Your task to perform on an android device: refresh tabs in the chrome app Image 0: 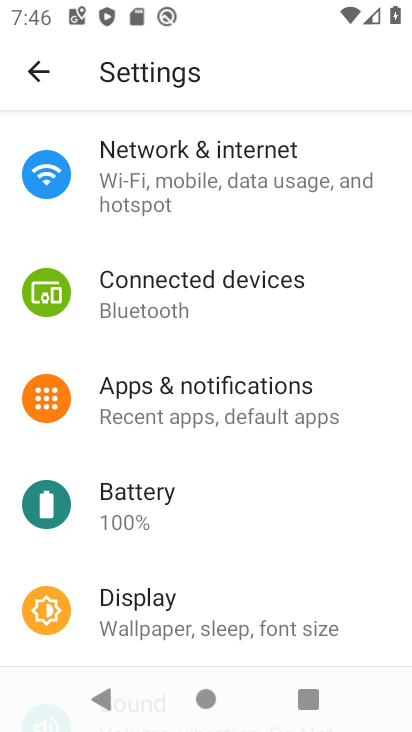
Step 0: press home button
Your task to perform on an android device: refresh tabs in the chrome app Image 1: 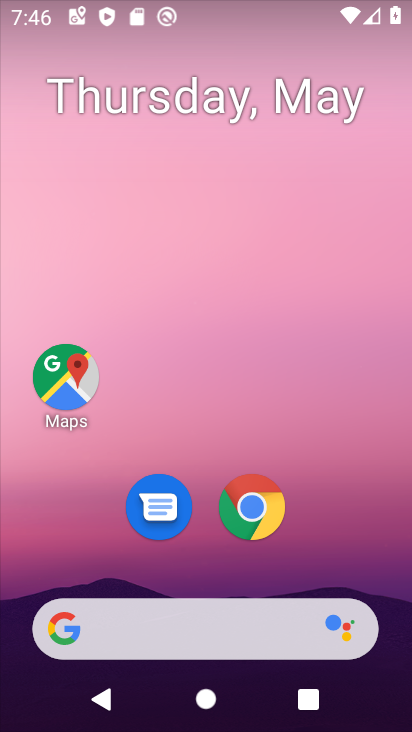
Step 1: drag from (262, 631) to (224, 182)
Your task to perform on an android device: refresh tabs in the chrome app Image 2: 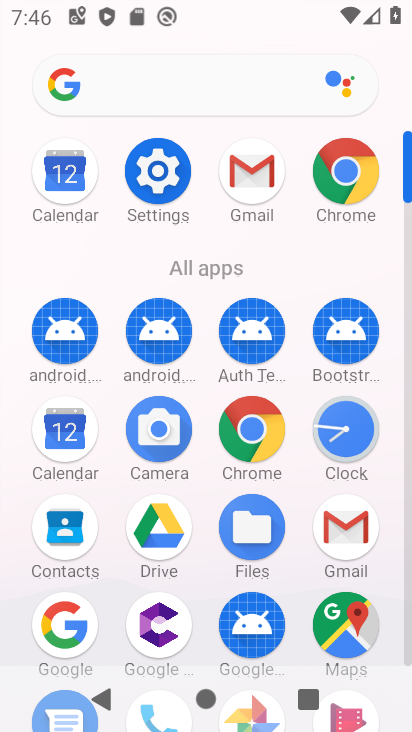
Step 2: click (326, 194)
Your task to perform on an android device: refresh tabs in the chrome app Image 3: 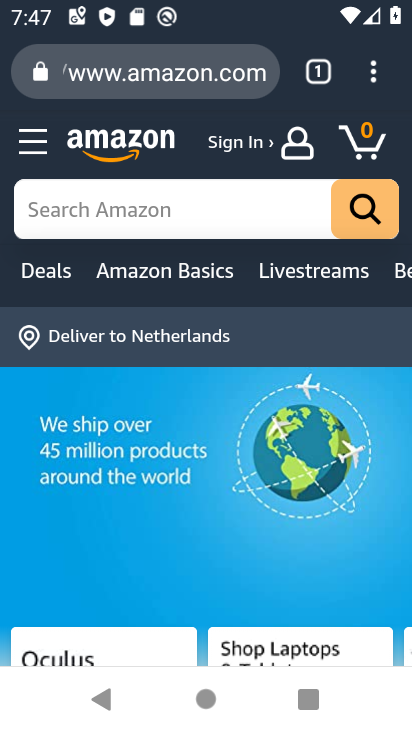
Step 3: click (372, 85)
Your task to perform on an android device: refresh tabs in the chrome app Image 4: 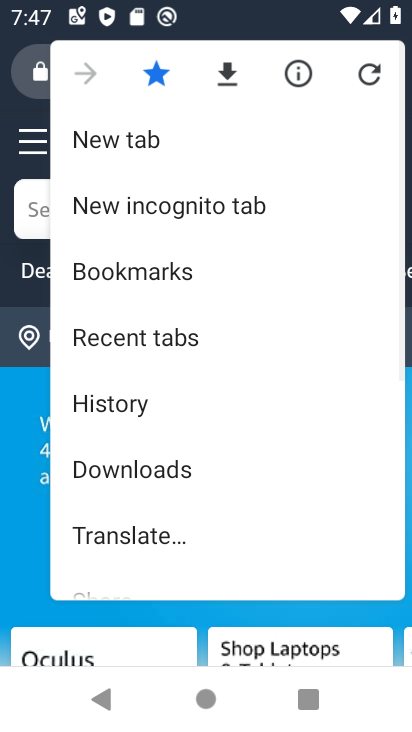
Step 4: click (362, 79)
Your task to perform on an android device: refresh tabs in the chrome app Image 5: 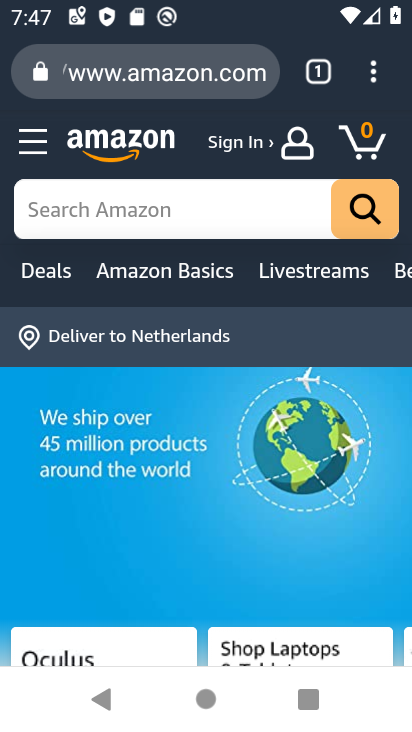
Step 5: task complete